Your task to perform on an android device: add a contact in the contacts app Image 0: 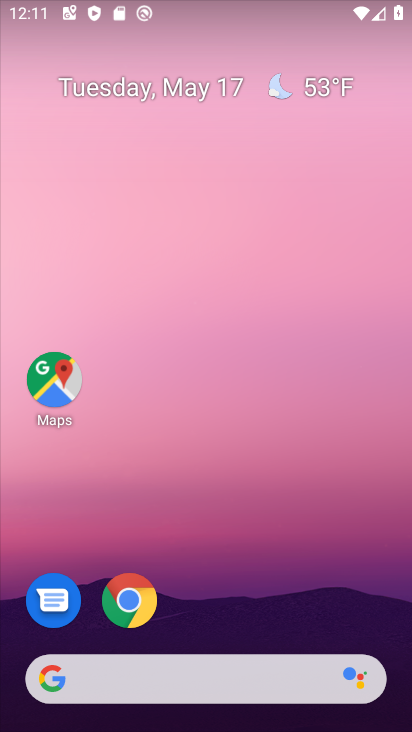
Step 0: drag from (250, 620) to (234, 229)
Your task to perform on an android device: add a contact in the contacts app Image 1: 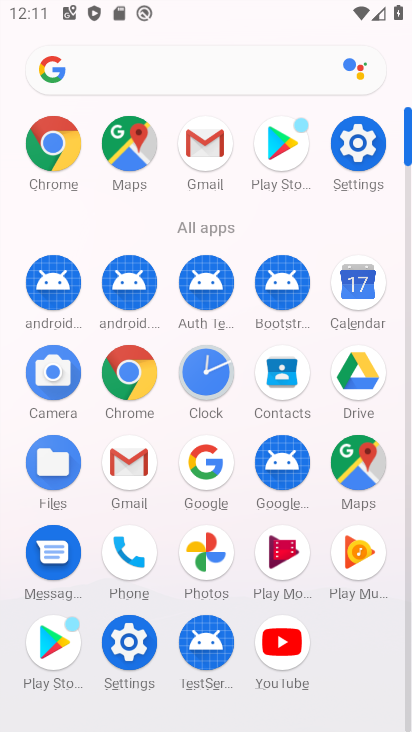
Step 1: click (289, 361)
Your task to perform on an android device: add a contact in the contacts app Image 2: 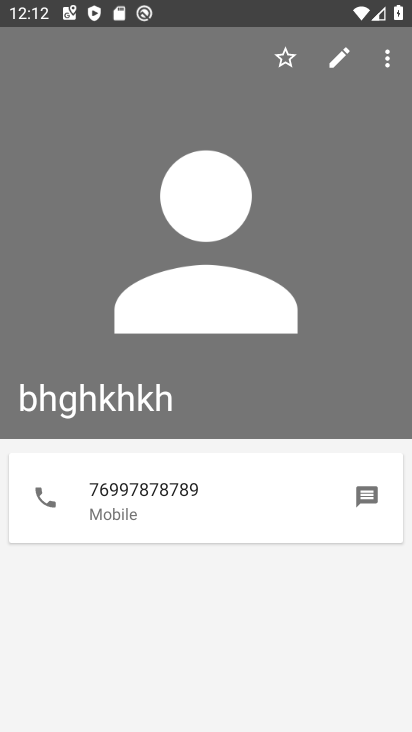
Step 2: task complete